Your task to perform on an android device: What's the weather going to be this weekend? Image 0: 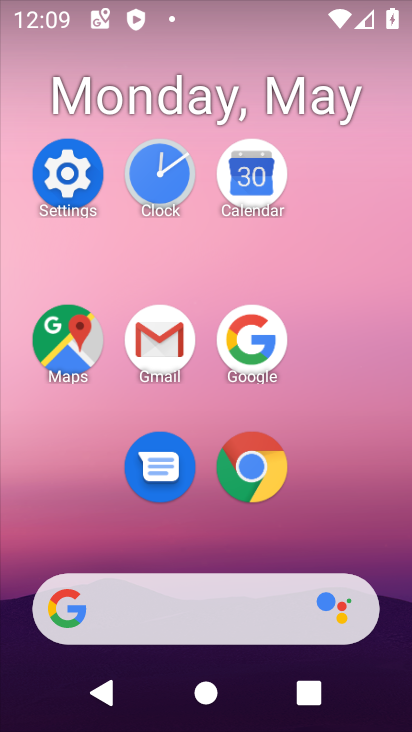
Step 0: click (256, 330)
Your task to perform on an android device: What's the weather going to be this weekend? Image 1: 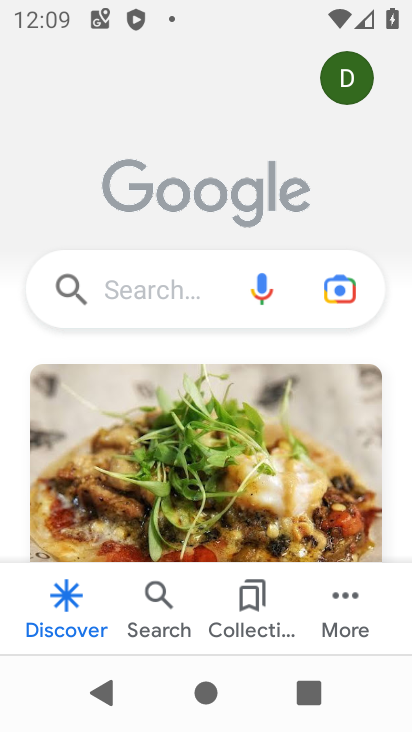
Step 1: click (133, 298)
Your task to perform on an android device: What's the weather going to be this weekend? Image 2: 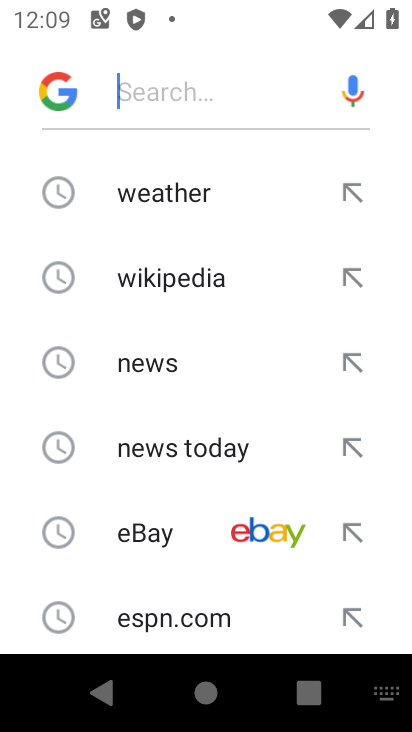
Step 2: click (175, 200)
Your task to perform on an android device: What's the weather going to be this weekend? Image 3: 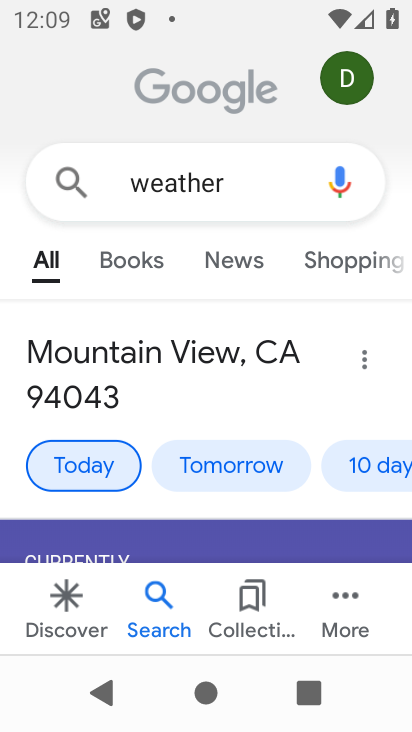
Step 3: click (366, 464)
Your task to perform on an android device: What's the weather going to be this weekend? Image 4: 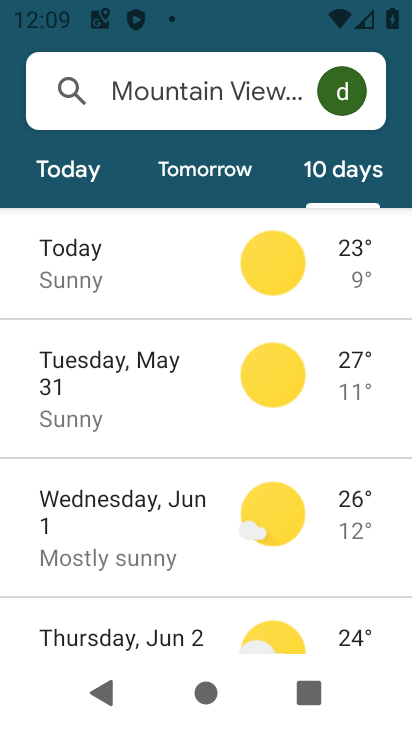
Step 4: drag from (174, 528) to (195, 220)
Your task to perform on an android device: What's the weather going to be this weekend? Image 5: 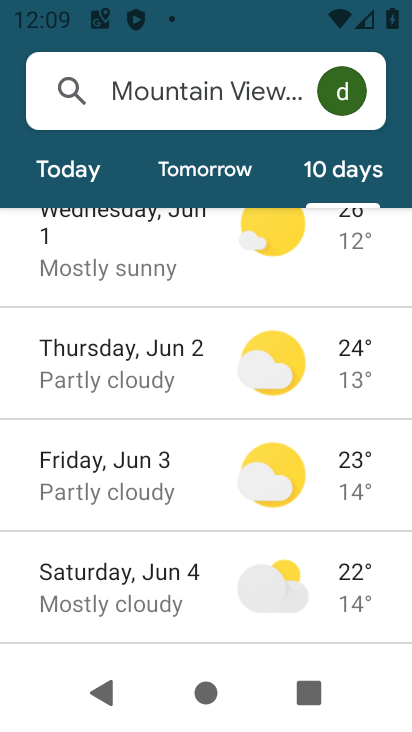
Step 5: click (156, 587)
Your task to perform on an android device: What's the weather going to be this weekend? Image 6: 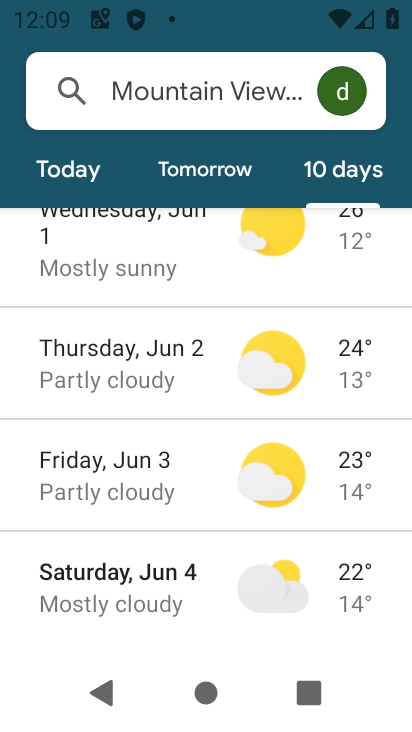
Step 6: task complete